Your task to perform on an android device: turn smart compose on in the gmail app Image 0: 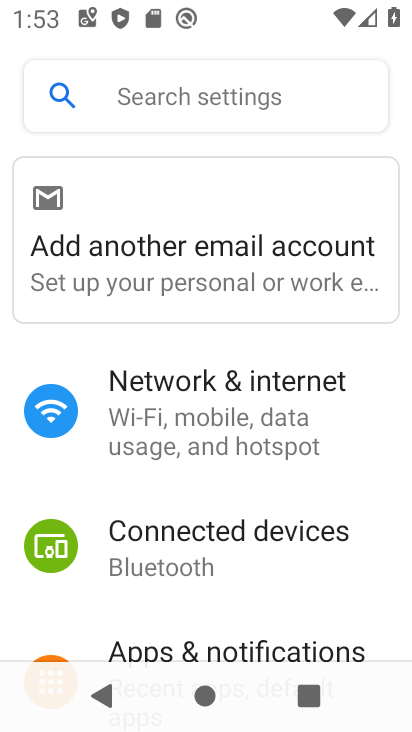
Step 0: drag from (250, 610) to (292, 128)
Your task to perform on an android device: turn smart compose on in the gmail app Image 1: 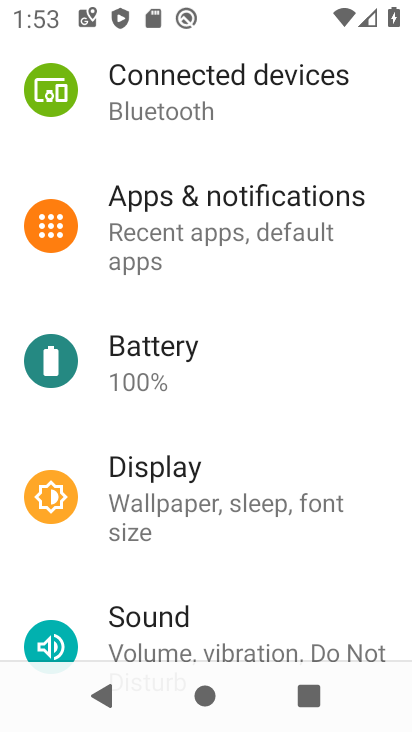
Step 1: press back button
Your task to perform on an android device: turn smart compose on in the gmail app Image 2: 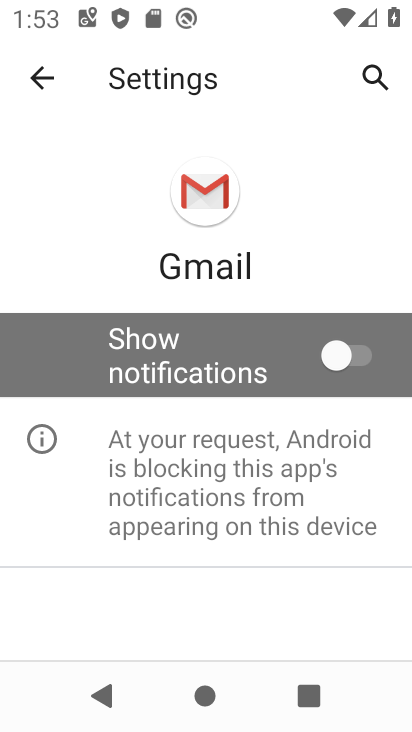
Step 2: press back button
Your task to perform on an android device: turn smart compose on in the gmail app Image 3: 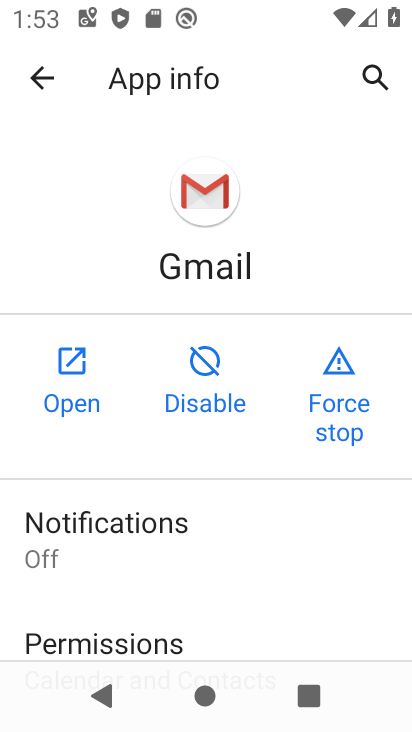
Step 3: drag from (204, 605) to (282, 17)
Your task to perform on an android device: turn smart compose on in the gmail app Image 4: 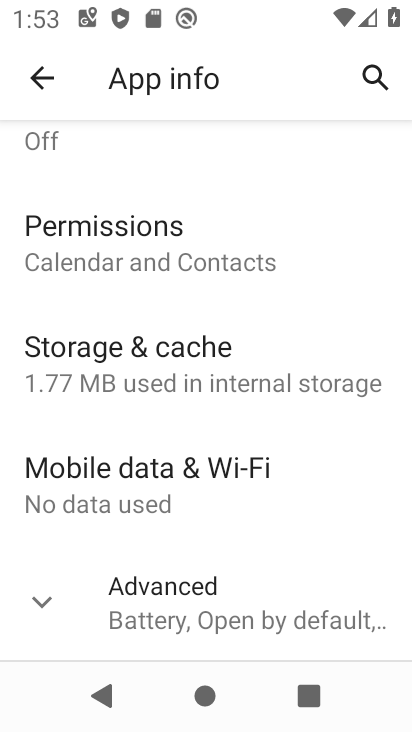
Step 4: click (38, 87)
Your task to perform on an android device: turn smart compose on in the gmail app Image 5: 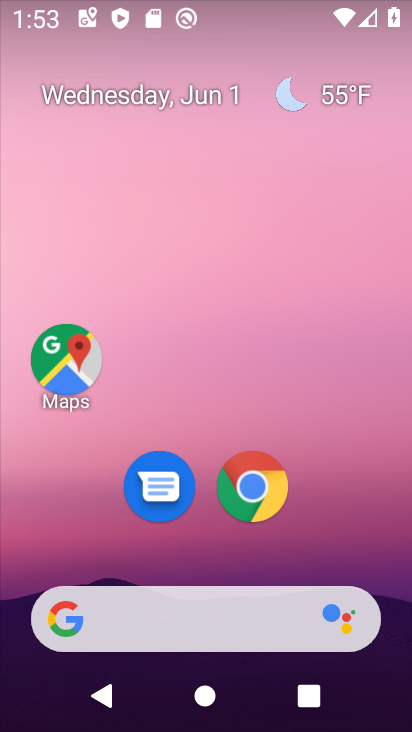
Step 5: drag from (184, 544) to (248, 19)
Your task to perform on an android device: turn smart compose on in the gmail app Image 6: 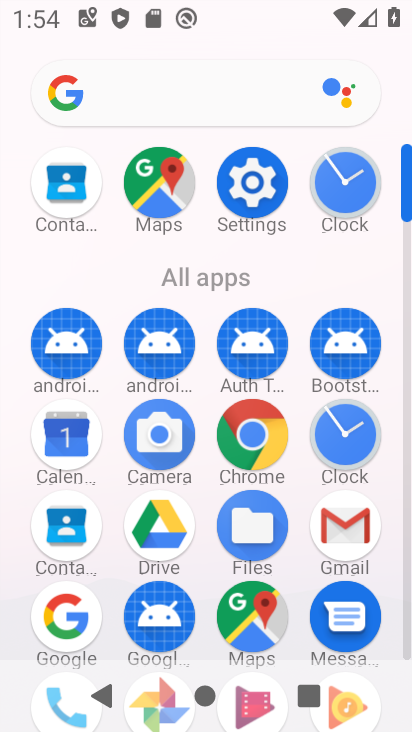
Step 6: click (349, 529)
Your task to perform on an android device: turn smart compose on in the gmail app Image 7: 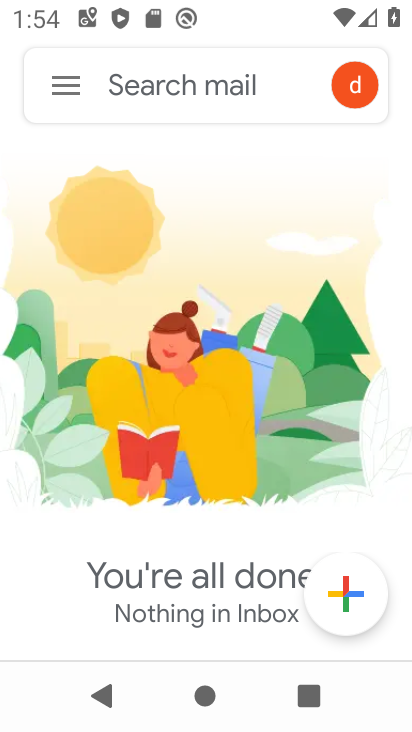
Step 7: click (63, 81)
Your task to perform on an android device: turn smart compose on in the gmail app Image 8: 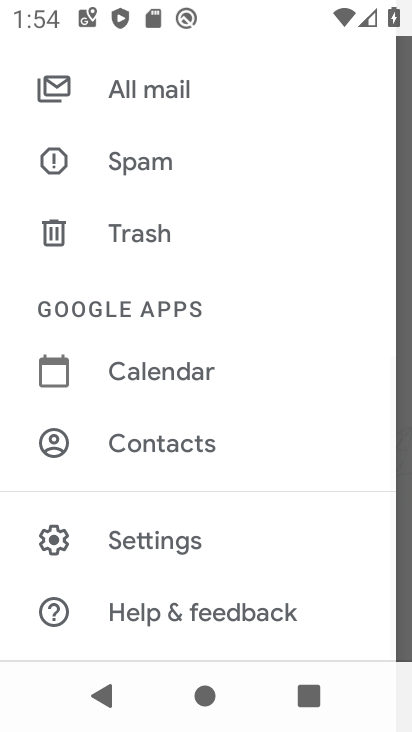
Step 8: drag from (175, 133) to (170, 639)
Your task to perform on an android device: turn smart compose on in the gmail app Image 9: 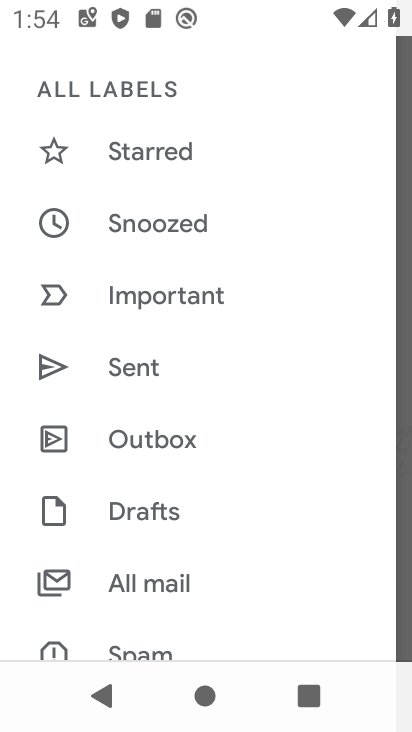
Step 9: drag from (173, 590) to (249, 69)
Your task to perform on an android device: turn smart compose on in the gmail app Image 10: 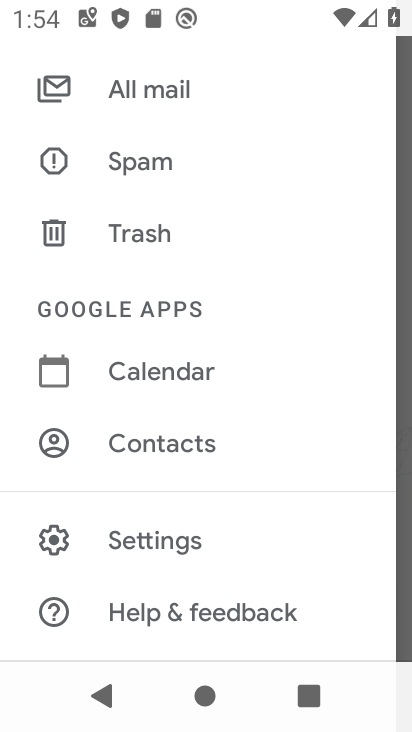
Step 10: click (171, 534)
Your task to perform on an android device: turn smart compose on in the gmail app Image 11: 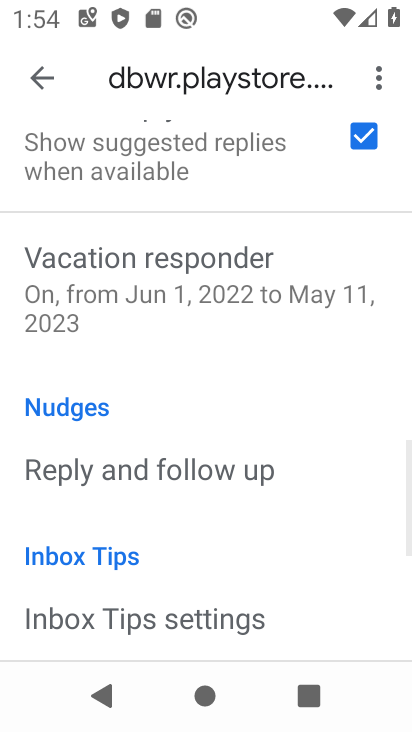
Step 11: task complete